Your task to perform on an android device: Search for the best rated phone case for the iPhone 8. Image 0: 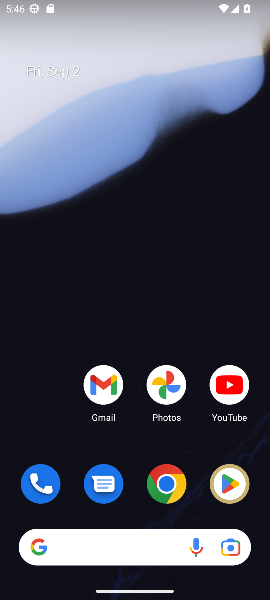
Step 0: click (160, 489)
Your task to perform on an android device: Search for the best rated phone case for the iPhone 8. Image 1: 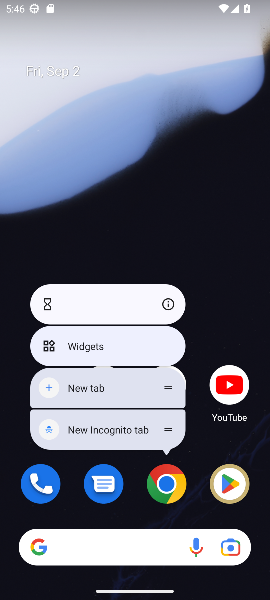
Step 1: click (167, 482)
Your task to perform on an android device: Search for the best rated phone case for the iPhone 8. Image 2: 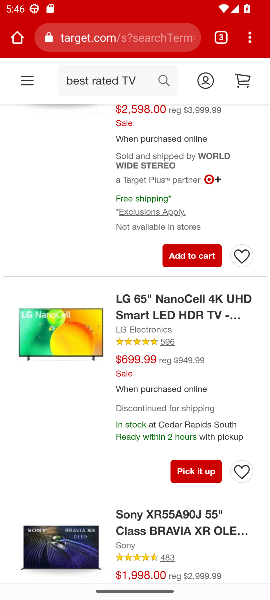
Step 2: click (163, 43)
Your task to perform on an android device: Search for the best rated phone case for the iPhone 8. Image 3: 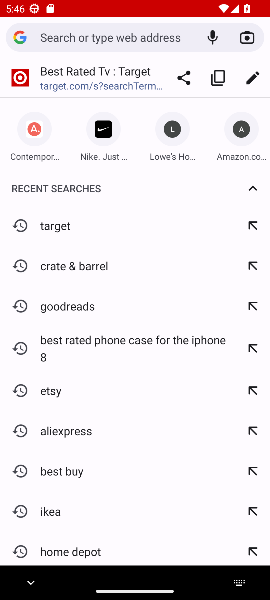
Step 3: type " best rated phone case for the iPhone 8"
Your task to perform on an android device: Search for the best rated phone case for the iPhone 8. Image 4: 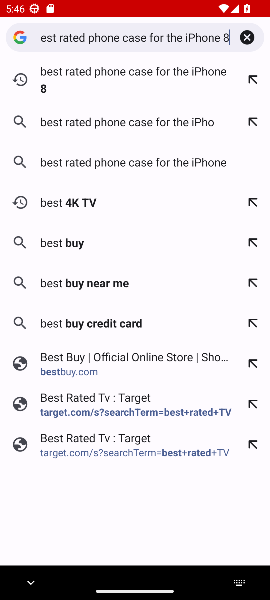
Step 4: press enter
Your task to perform on an android device: Search for the best rated phone case for the iPhone 8. Image 5: 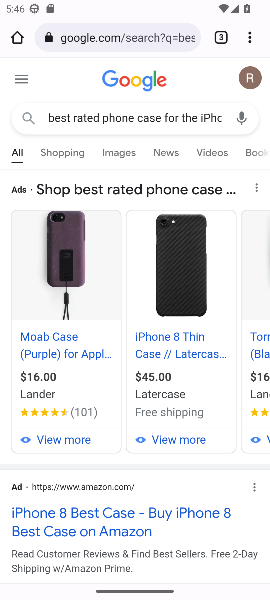
Step 5: drag from (83, 505) to (180, 315)
Your task to perform on an android device: Search for the best rated phone case for the iPhone 8. Image 6: 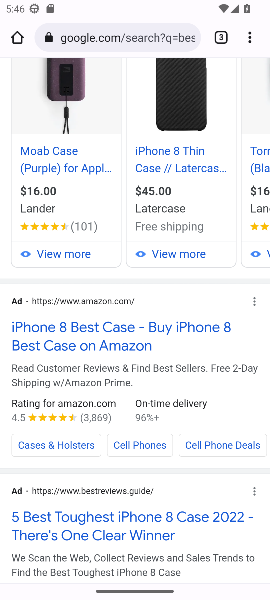
Step 6: click (131, 321)
Your task to perform on an android device: Search for the best rated phone case for the iPhone 8. Image 7: 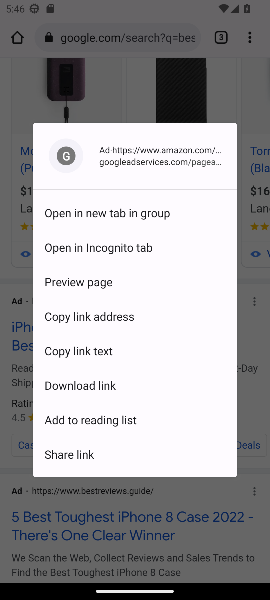
Step 7: click (251, 399)
Your task to perform on an android device: Search for the best rated phone case for the iPhone 8. Image 8: 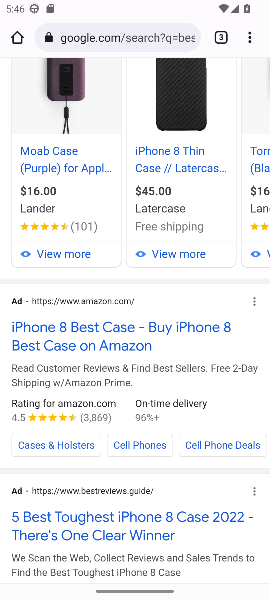
Step 8: task complete